Your task to perform on an android device: Open wifi settings Image 0: 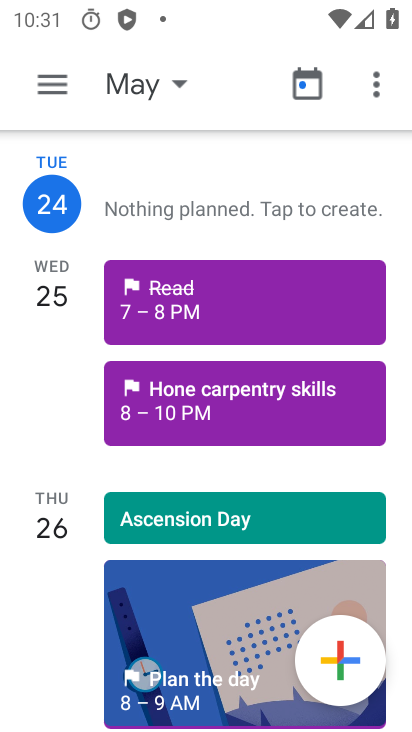
Step 0: press home button
Your task to perform on an android device: Open wifi settings Image 1: 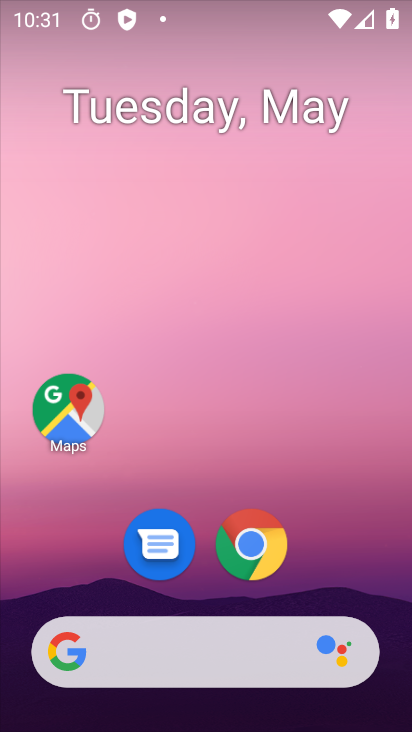
Step 1: drag from (372, 590) to (292, 21)
Your task to perform on an android device: Open wifi settings Image 2: 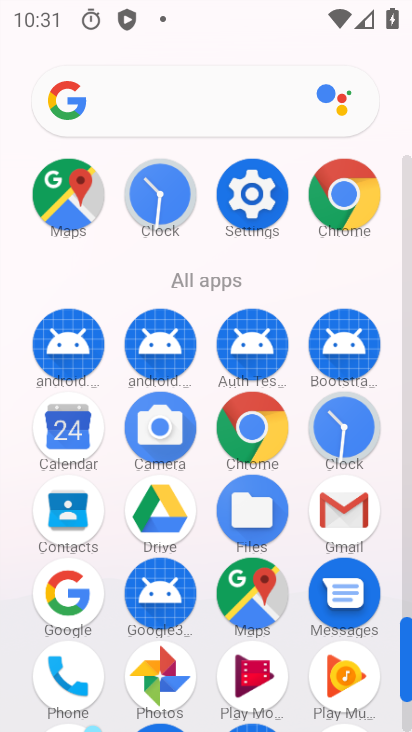
Step 2: click (263, 210)
Your task to perform on an android device: Open wifi settings Image 3: 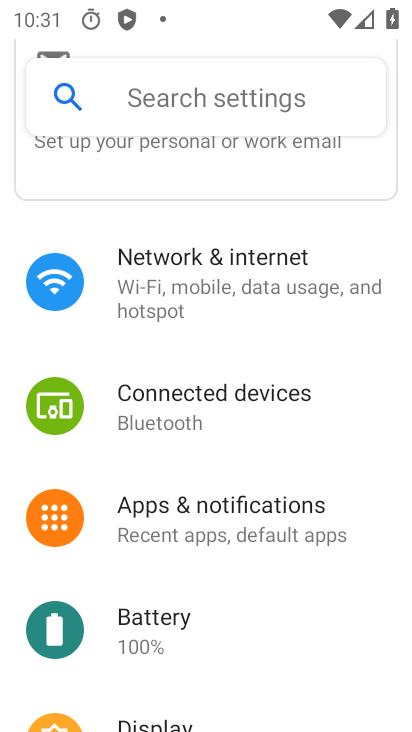
Step 3: drag from (240, 193) to (227, 579)
Your task to perform on an android device: Open wifi settings Image 4: 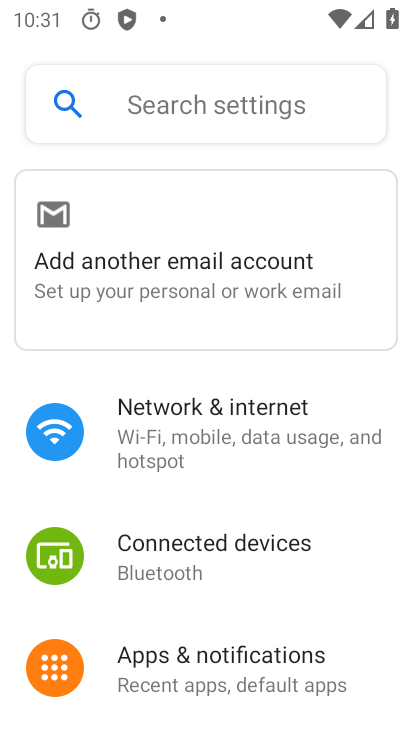
Step 4: click (190, 403)
Your task to perform on an android device: Open wifi settings Image 5: 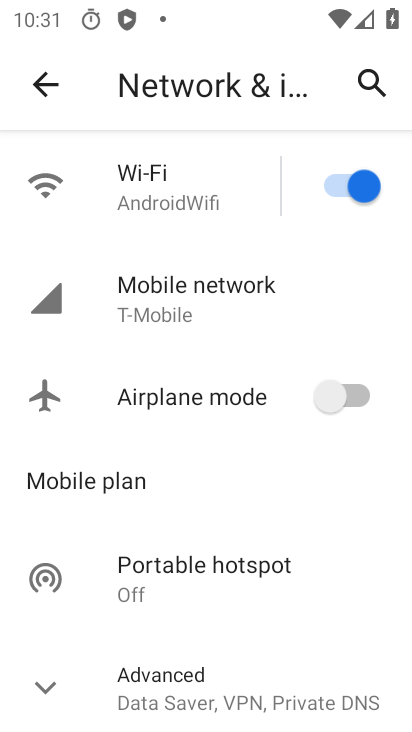
Step 5: click (139, 174)
Your task to perform on an android device: Open wifi settings Image 6: 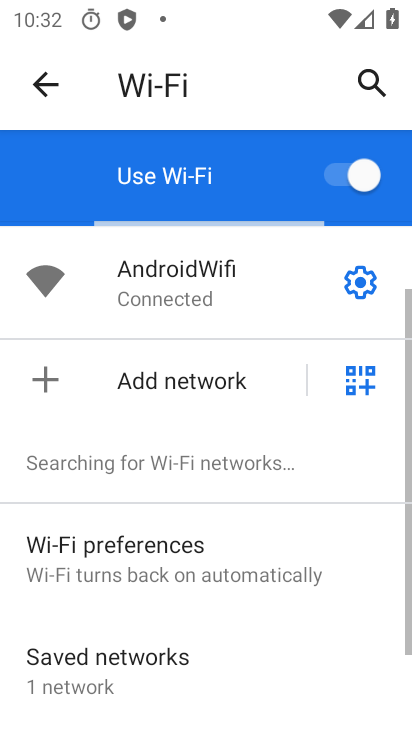
Step 6: task complete